Your task to perform on an android device: turn off airplane mode Image 0: 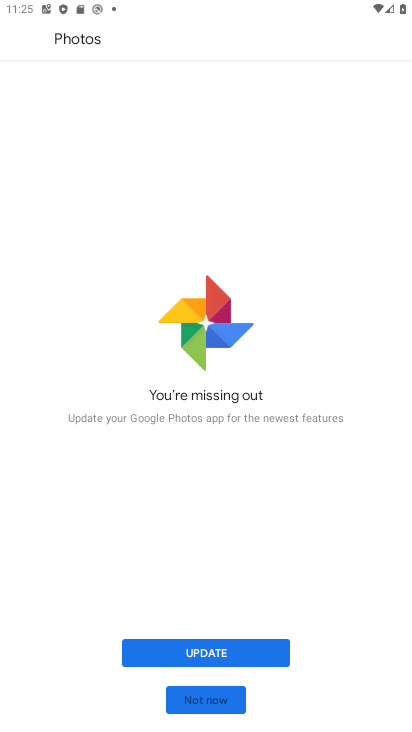
Step 0: press home button
Your task to perform on an android device: turn off airplane mode Image 1: 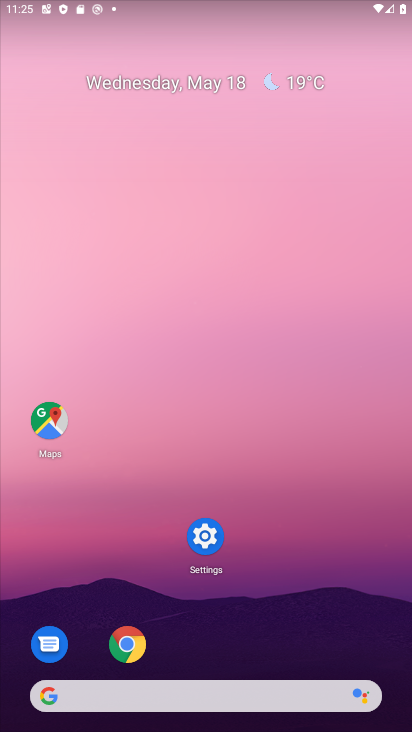
Step 1: task complete